Your task to perform on an android device: turn pop-ups off in chrome Image 0: 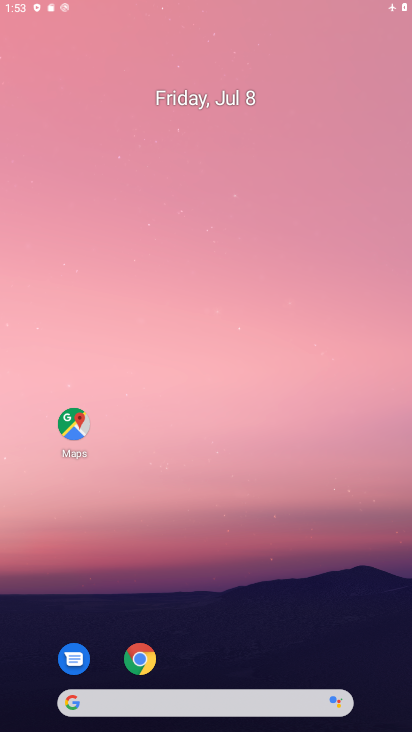
Step 0: click (213, 176)
Your task to perform on an android device: turn pop-ups off in chrome Image 1: 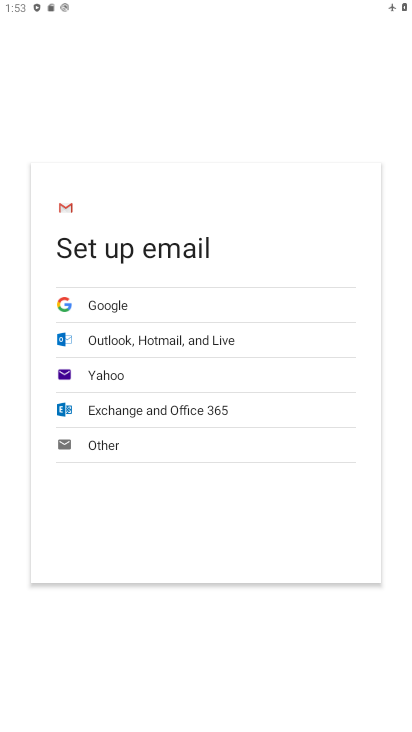
Step 1: press home button
Your task to perform on an android device: turn pop-ups off in chrome Image 2: 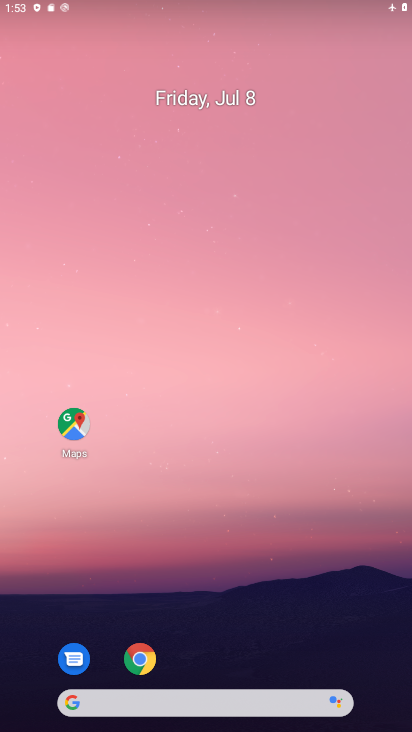
Step 2: drag from (247, 589) to (254, 112)
Your task to perform on an android device: turn pop-ups off in chrome Image 3: 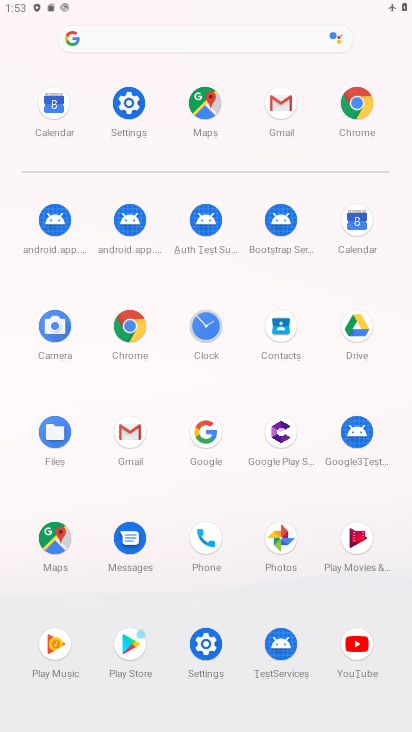
Step 3: click (143, 332)
Your task to perform on an android device: turn pop-ups off in chrome Image 4: 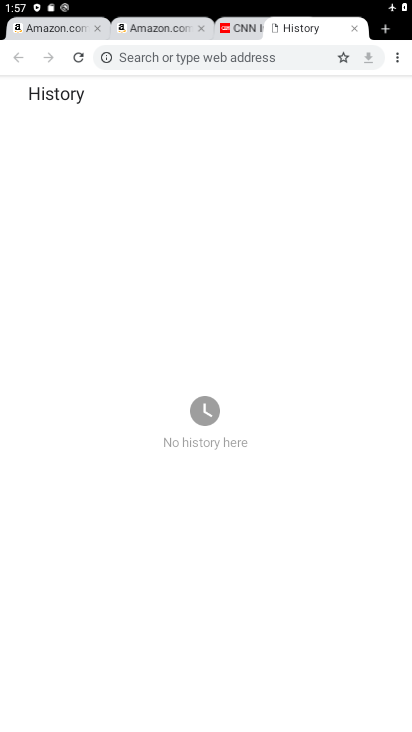
Step 4: click (398, 62)
Your task to perform on an android device: turn pop-ups off in chrome Image 5: 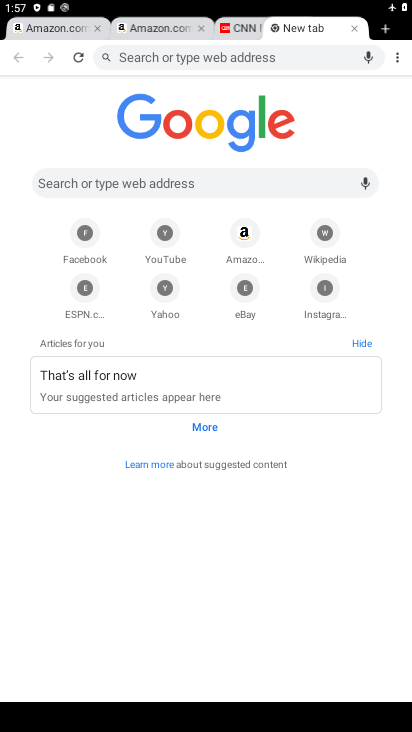
Step 5: click (400, 60)
Your task to perform on an android device: turn pop-ups off in chrome Image 6: 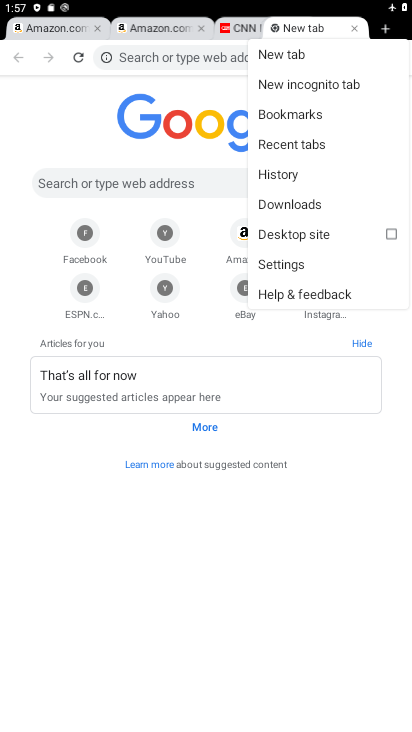
Step 6: click (297, 263)
Your task to perform on an android device: turn pop-ups off in chrome Image 7: 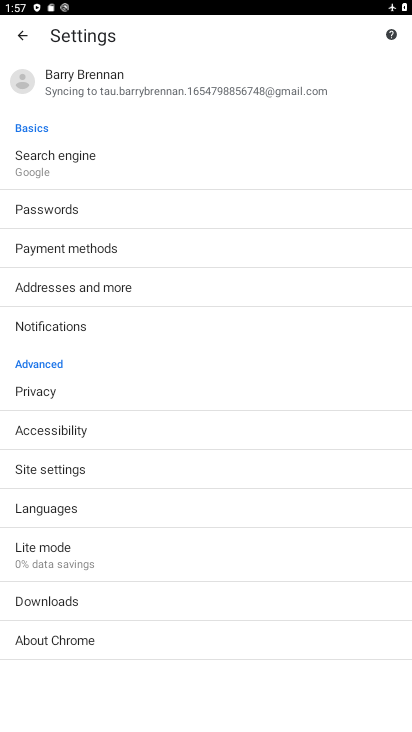
Step 7: click (108, 467)
Your task to perform on an android device: turn pop-ups off in chrome Image 8: 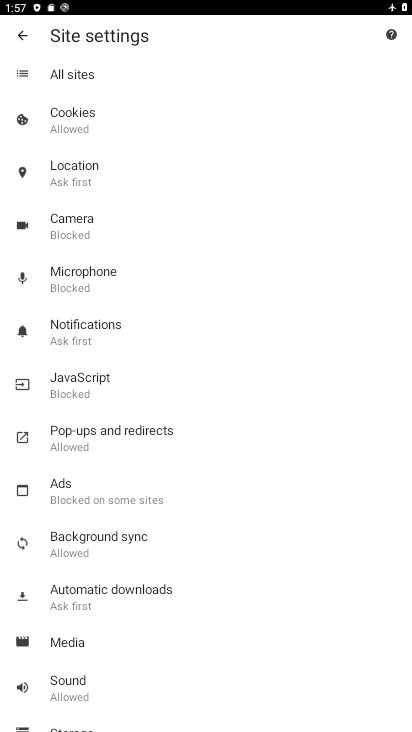
Step 8: click (185, 439)
Your task to perform on an android device: turn pop-ups off in chrome Image 9: 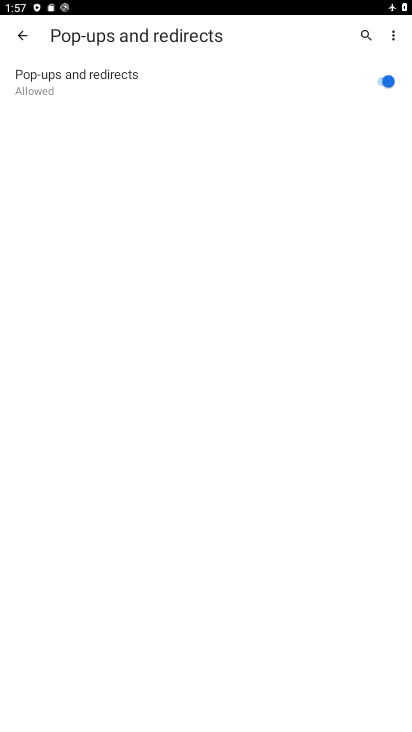
Step 9: click (379, 80)
Your task to perform on an android device: turn pop-ups off in chrome Image 10: 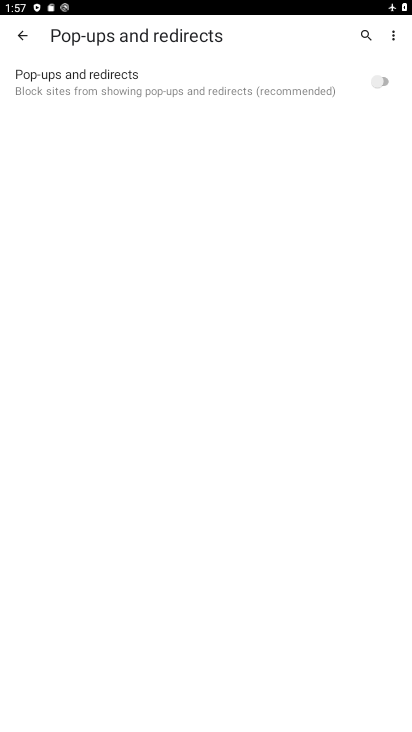
Step 10: click (361, 100)
Your task to perform on an android device: turn pop-ups off in chrome Image 11: 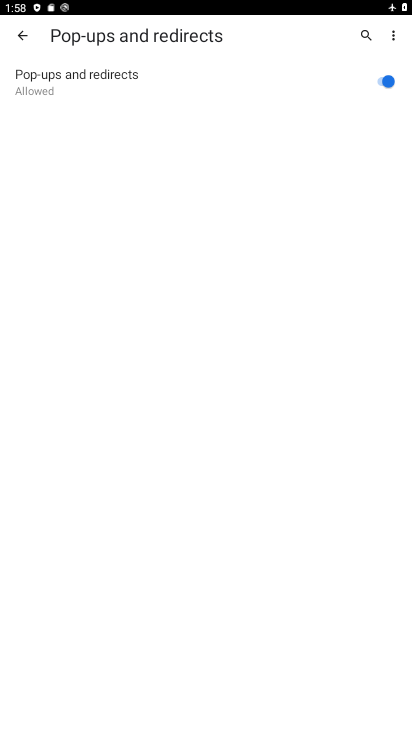
Step 11: click (393, 82)
Your task to perform on an android device: turn pop-ups off in chrome Image 12: 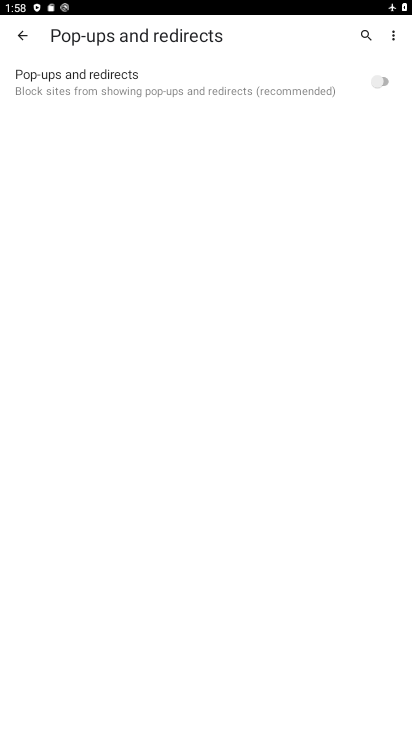
Step 12: task complete